Your task to perform on an android device: Go to sound settings Image 0: 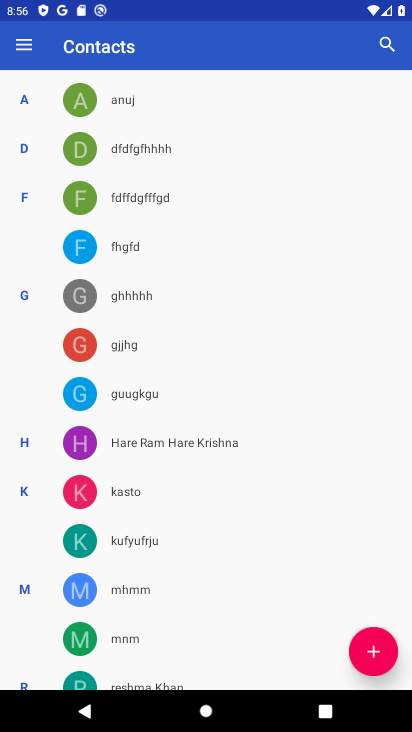
Step 0: press home button
Your task to perform on an android device: Go to sound settings Image 1: 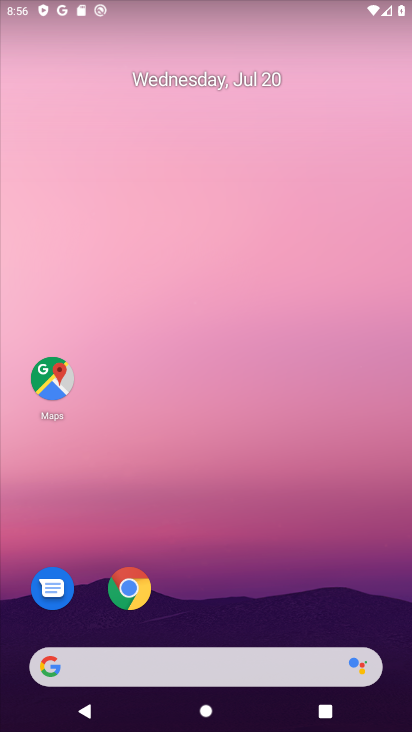
Step 1: drag from (223, 667) to (309, 156)
Your task to perform on an android device: Go to sound settings Image 2: 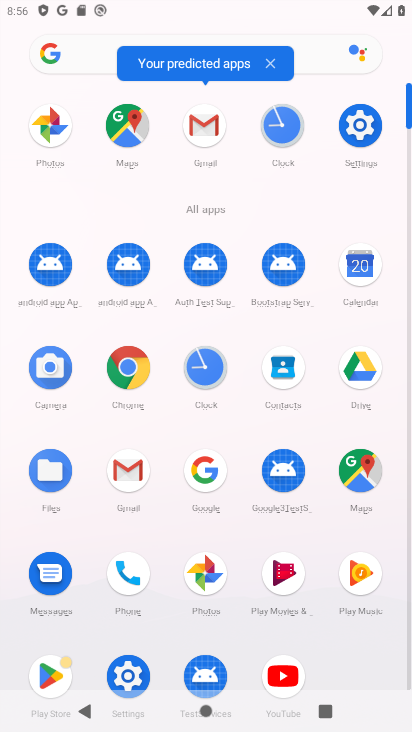
Step 2: click (364, 126)
Your task to perform on an android device: Go to sound settings Image 3: 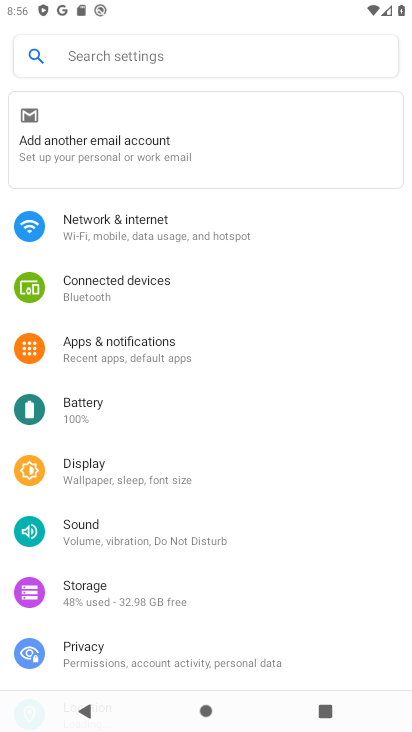
Step 3: click (101, 532)
Your task to perform on an android device: Go to sound settings Image 4: 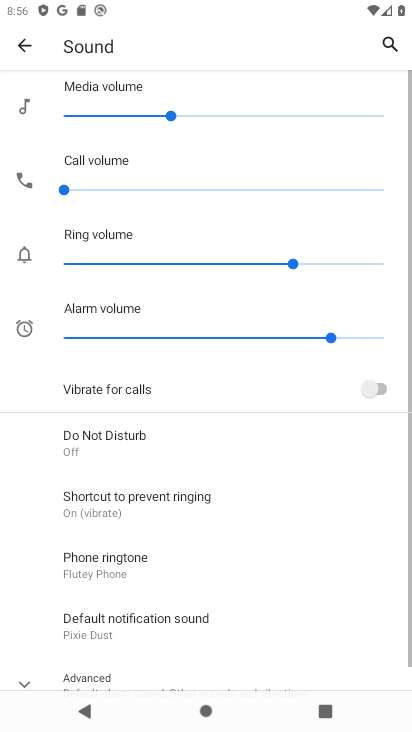
Step 4: task complete